Your task to perform on an android device: Add alienware aurora to the cart on walmart.com, then select checkout. Image 0: 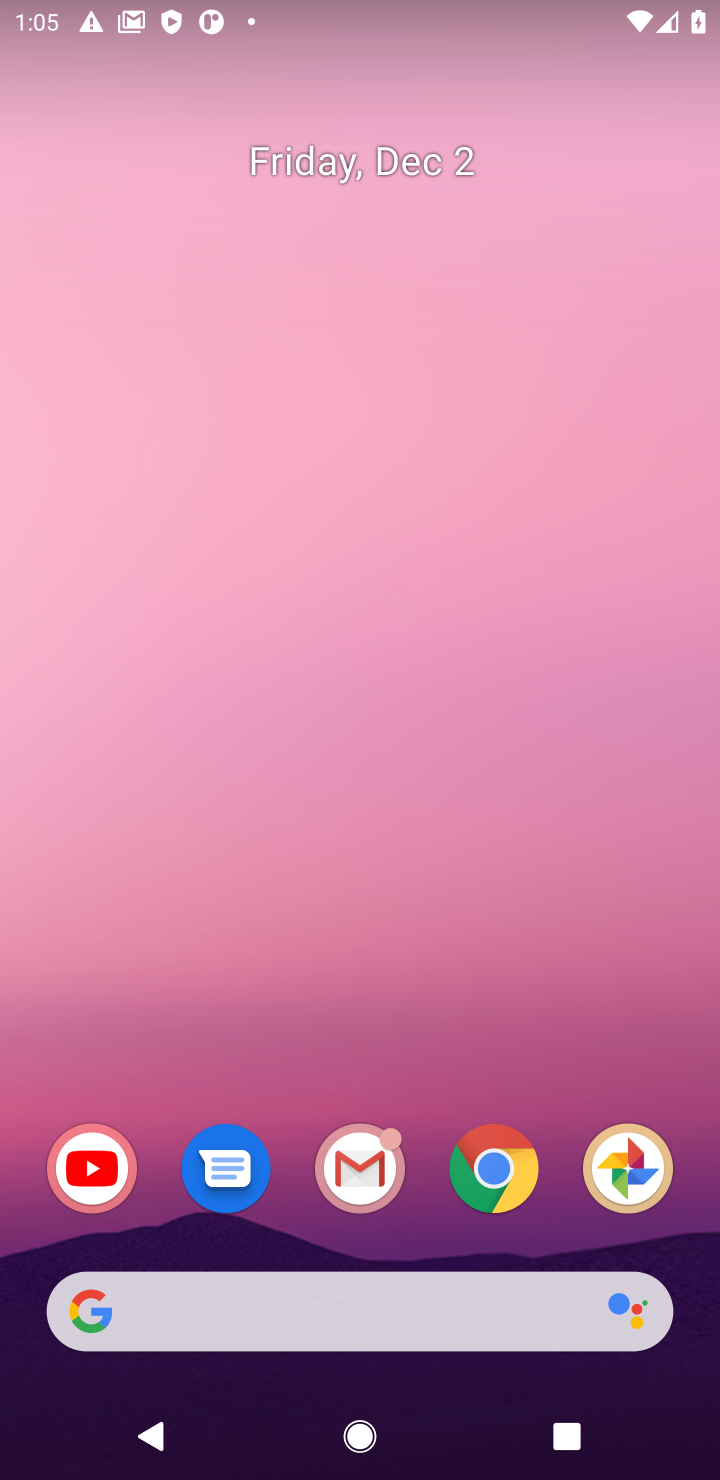
Step 0: click (495, 1182)
Your task to perform on an android device: Add alienware aurora to the cart on walmart.com, then select checkout. Image 1: 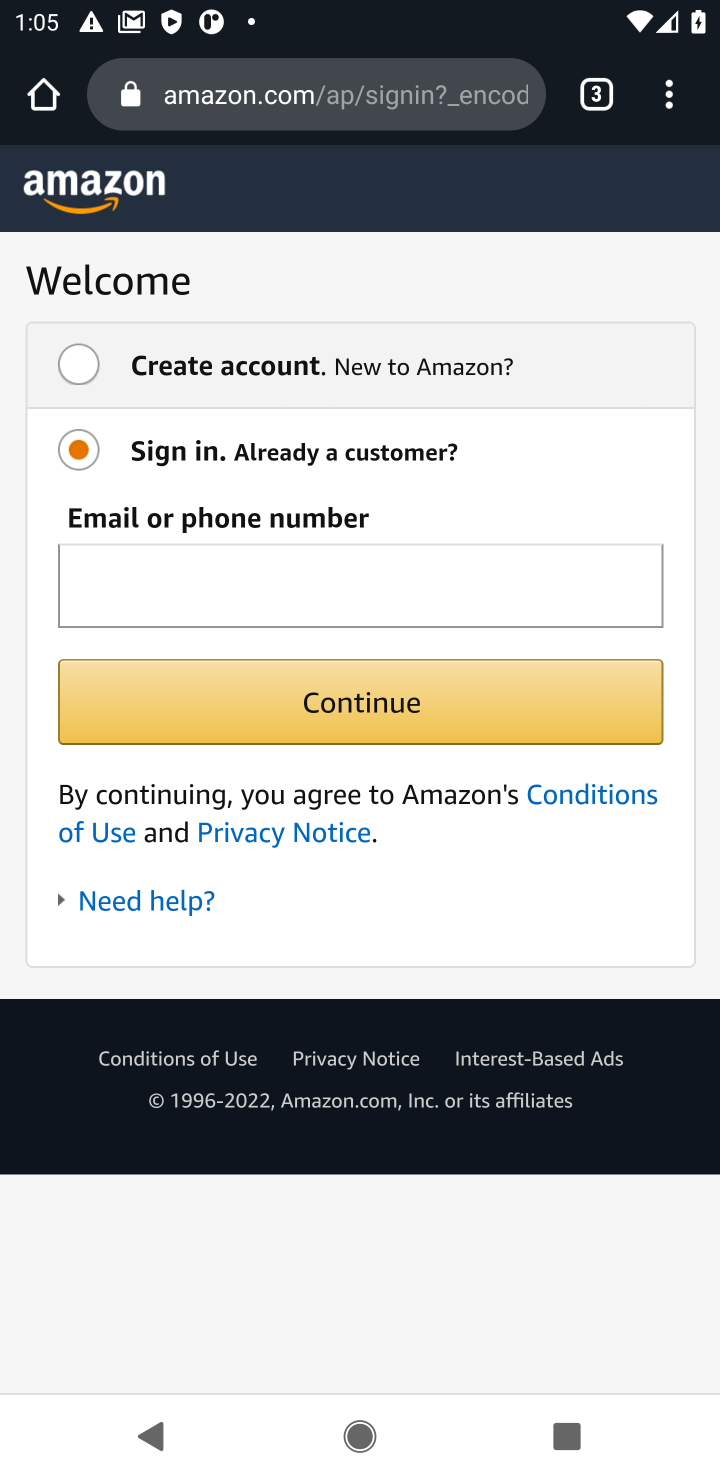
Step 1: click (246, 106)
Your task to perform on an android device: Add alienware aurora to the cart on walmart.com, then select checkout. Image 2: 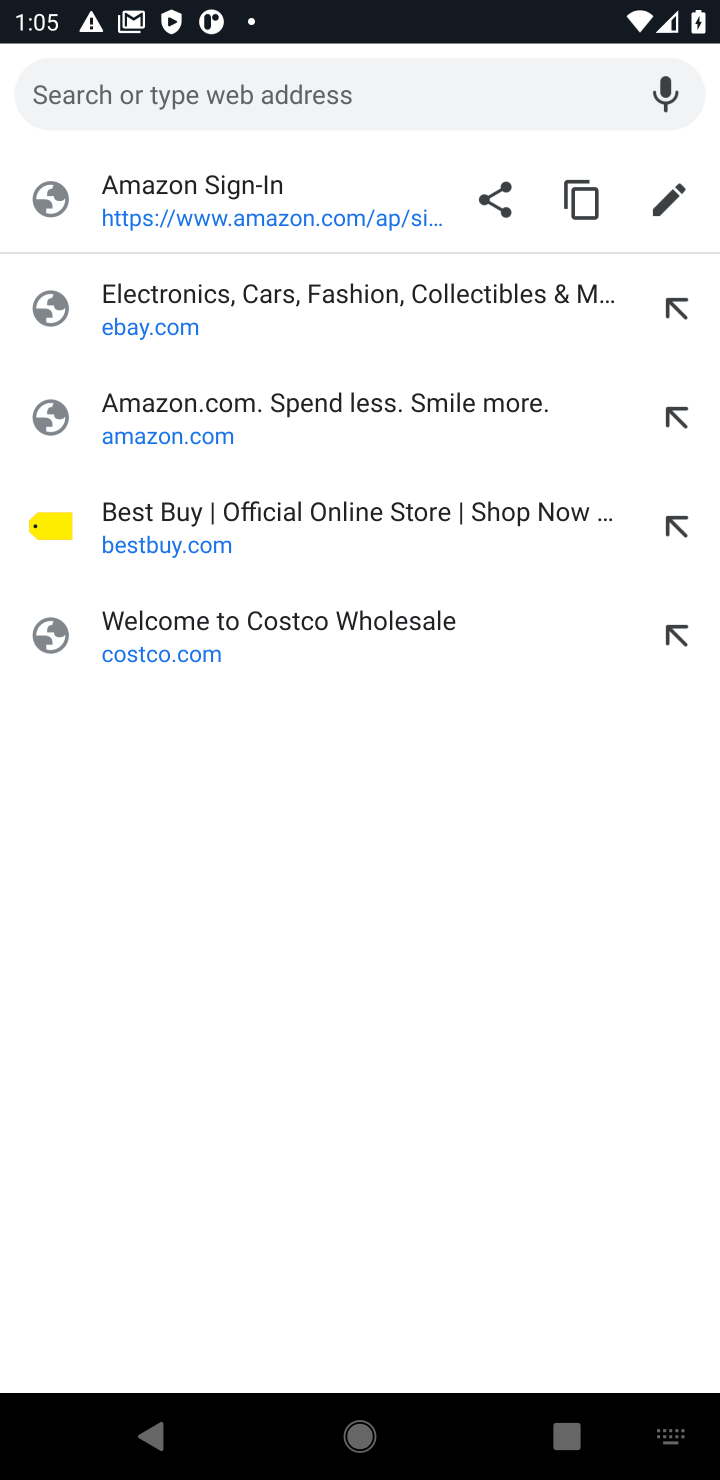
Step 2: type "walmart.com"
Your task to perform on an android device: Add alienware aurora to the cart on walmart.com, then select checkout. Image 3: 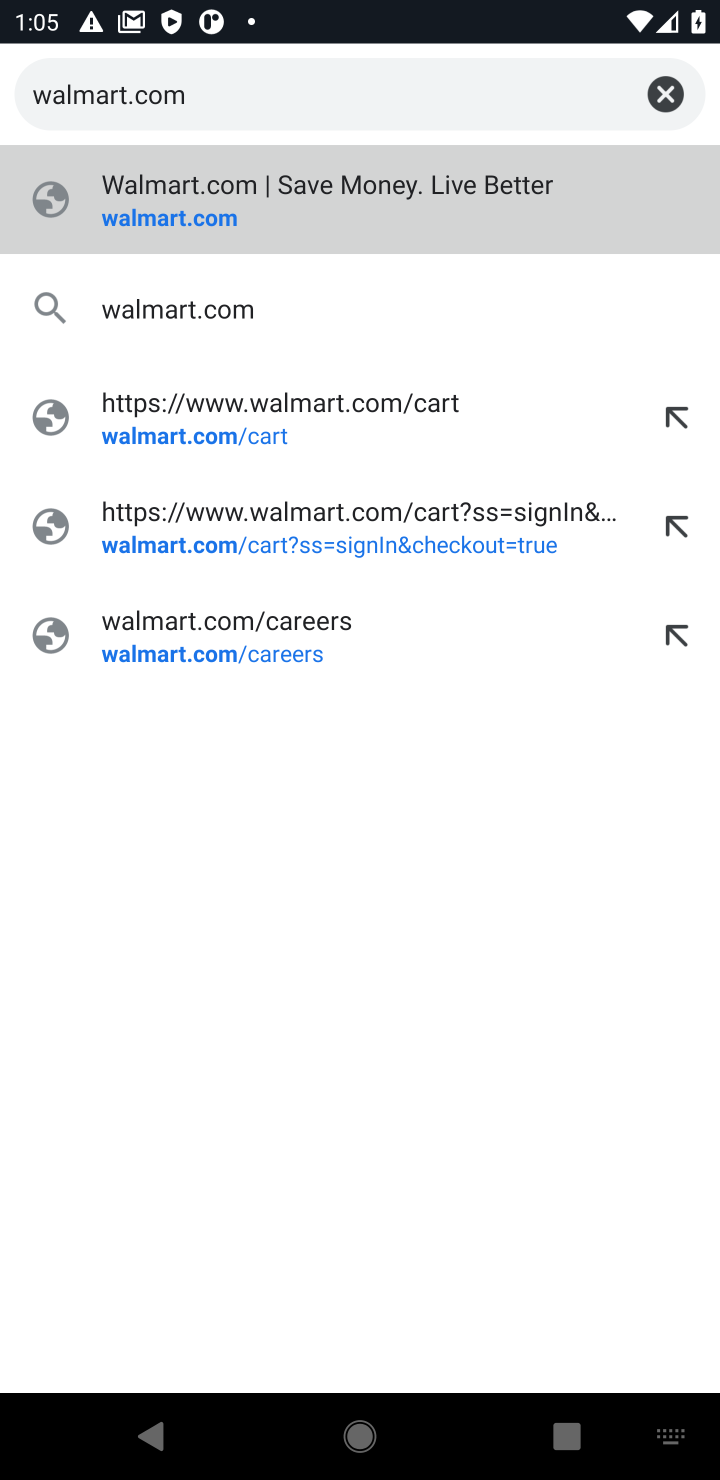
Step 3: click (147, 208)
Your task to perform on an android device: Add alienware aurora to the cart on walmart.com, then select checkout. Image 4: 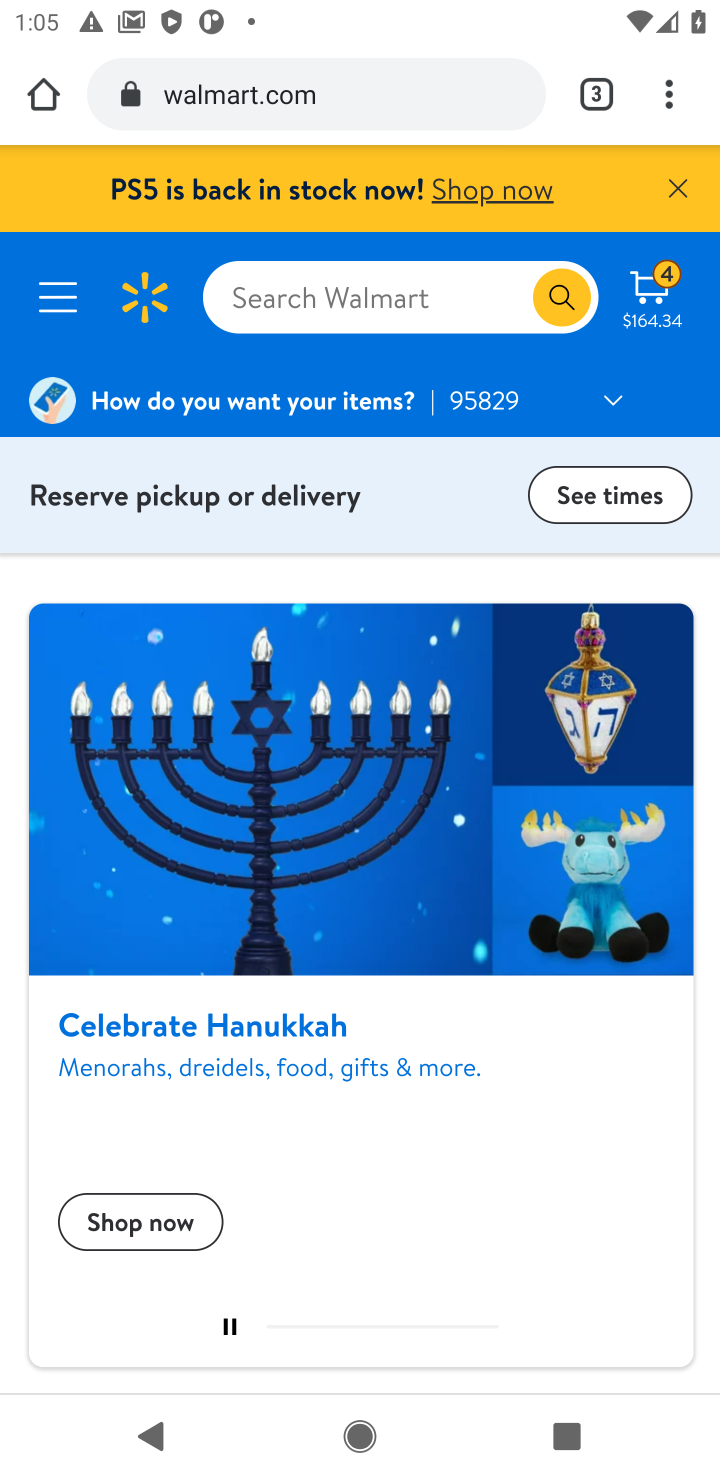
Step 4: click (329, 297)
Your task to perform on an android device: Add alienware aurora to the cart on walmart.com, then select checkout. Image 5: 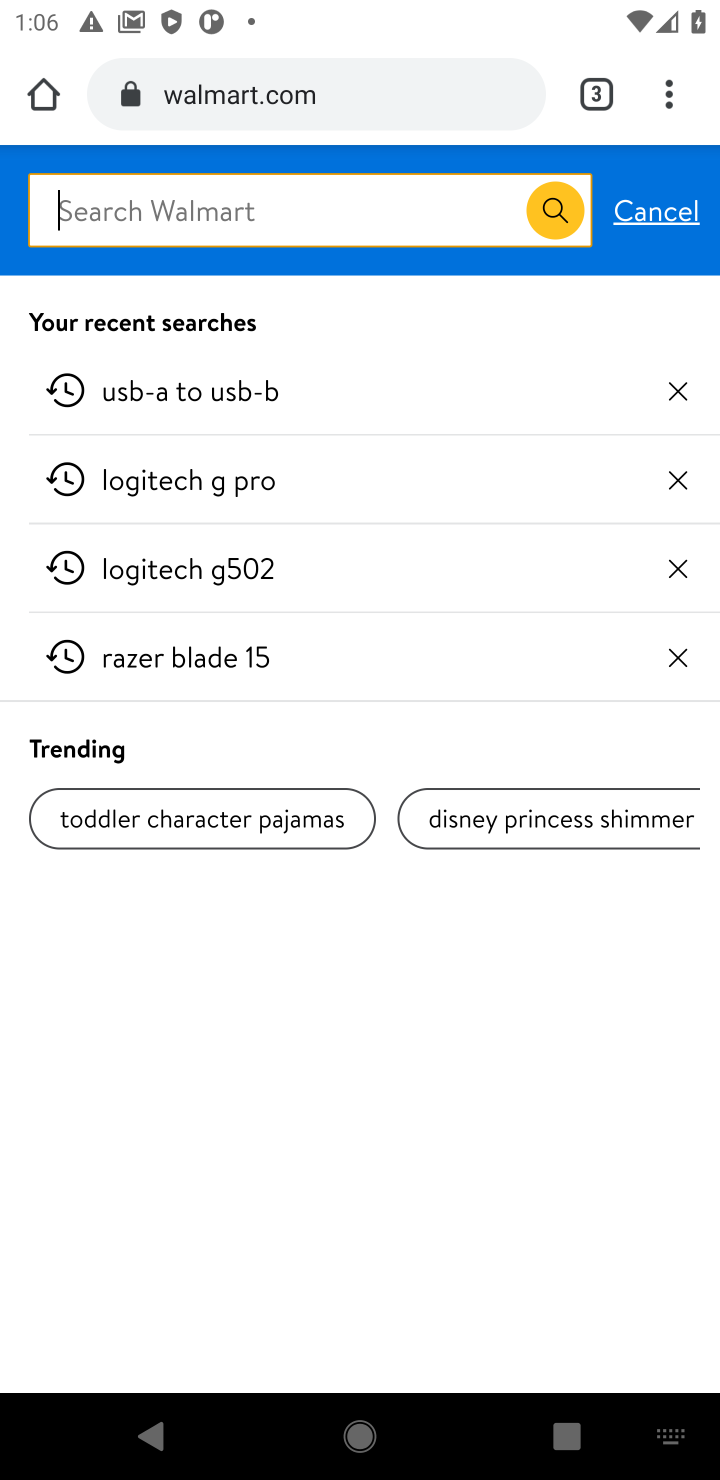
Step 5: type "alienware aurora"
Your task to perform on an android device: Add alienware aurora to the cart on walmart.com, then select checkout. Image 6: 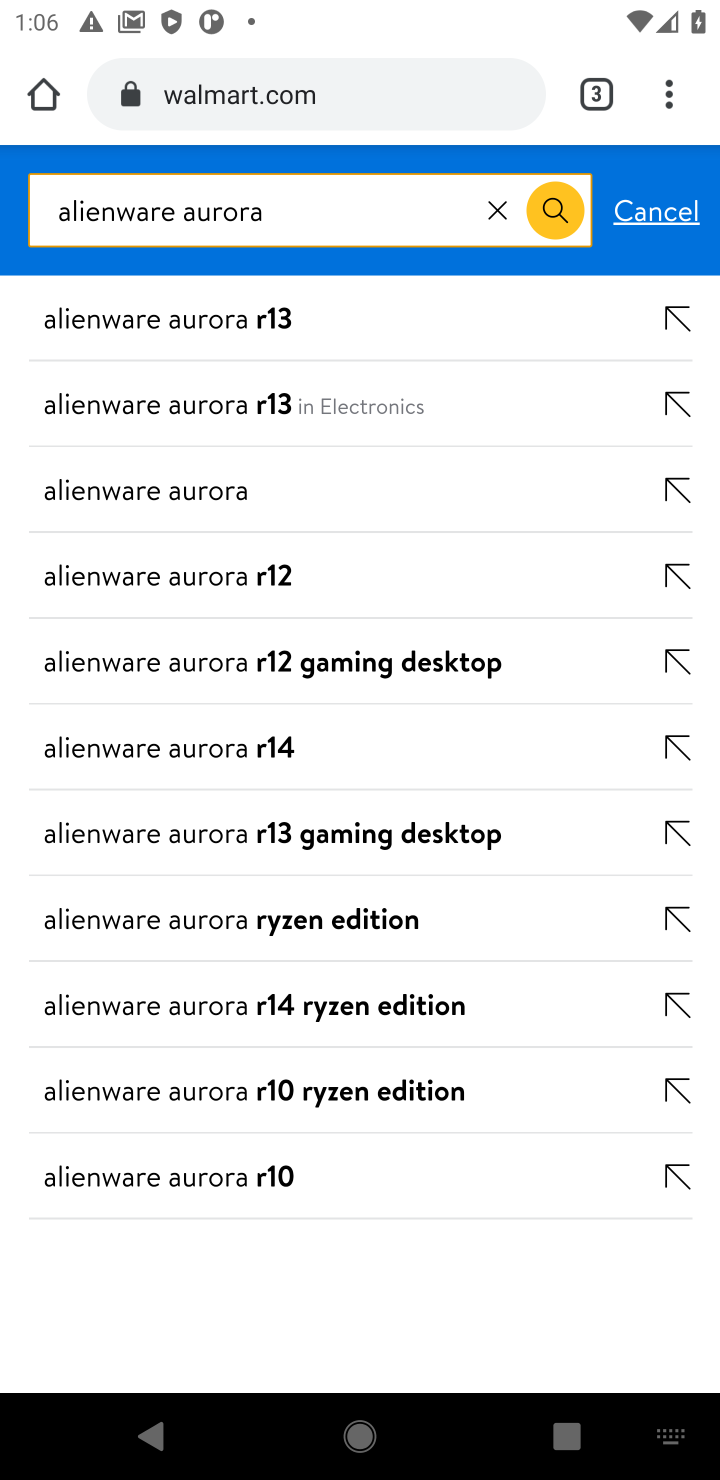
Step 6: click (156, 495)
Your task to perform on an android device: Add alienware aurora to the cart on walmart.com, then select checkout. Image 7: 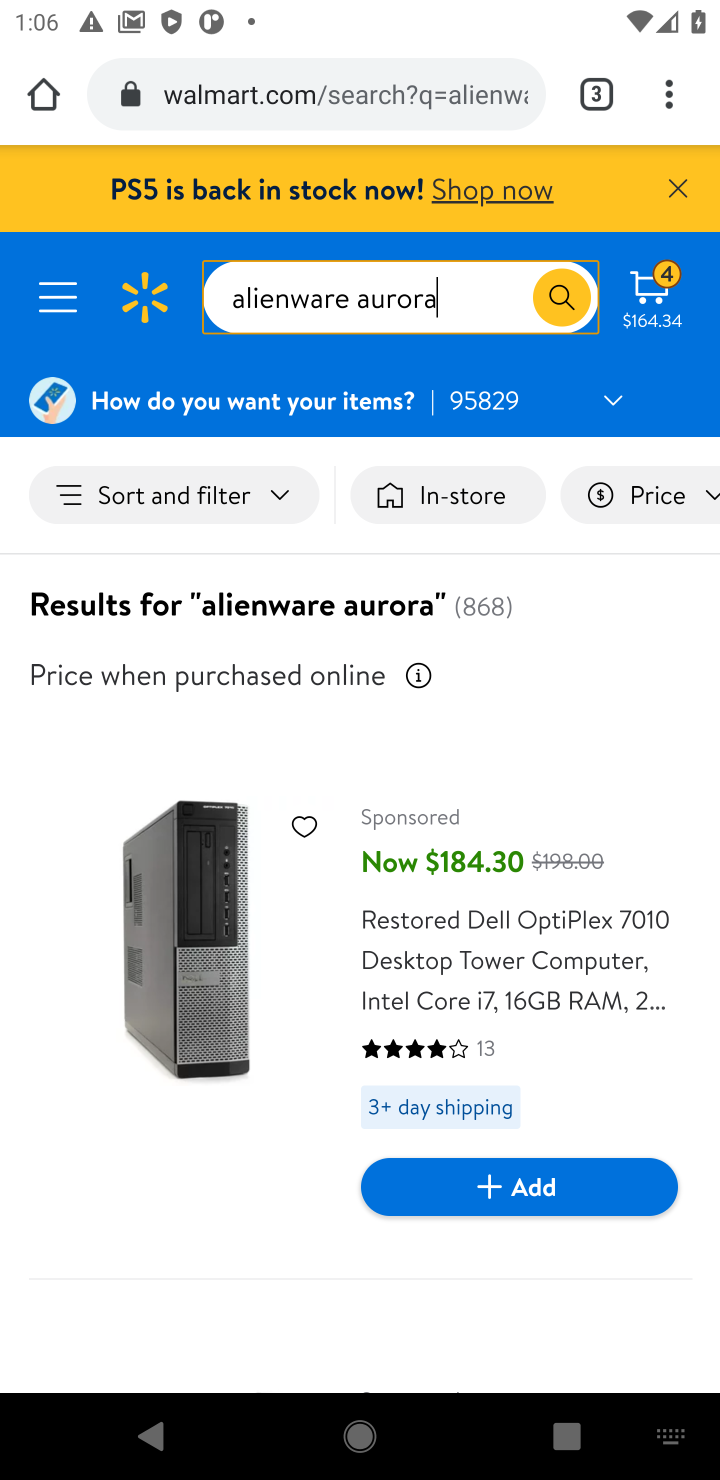
Step 7: drag from (346, 963) to (346, 483)
Your task to perform on an android device: Add alienware aurora to the cart on walmart.com, then select checkout. Image 8: 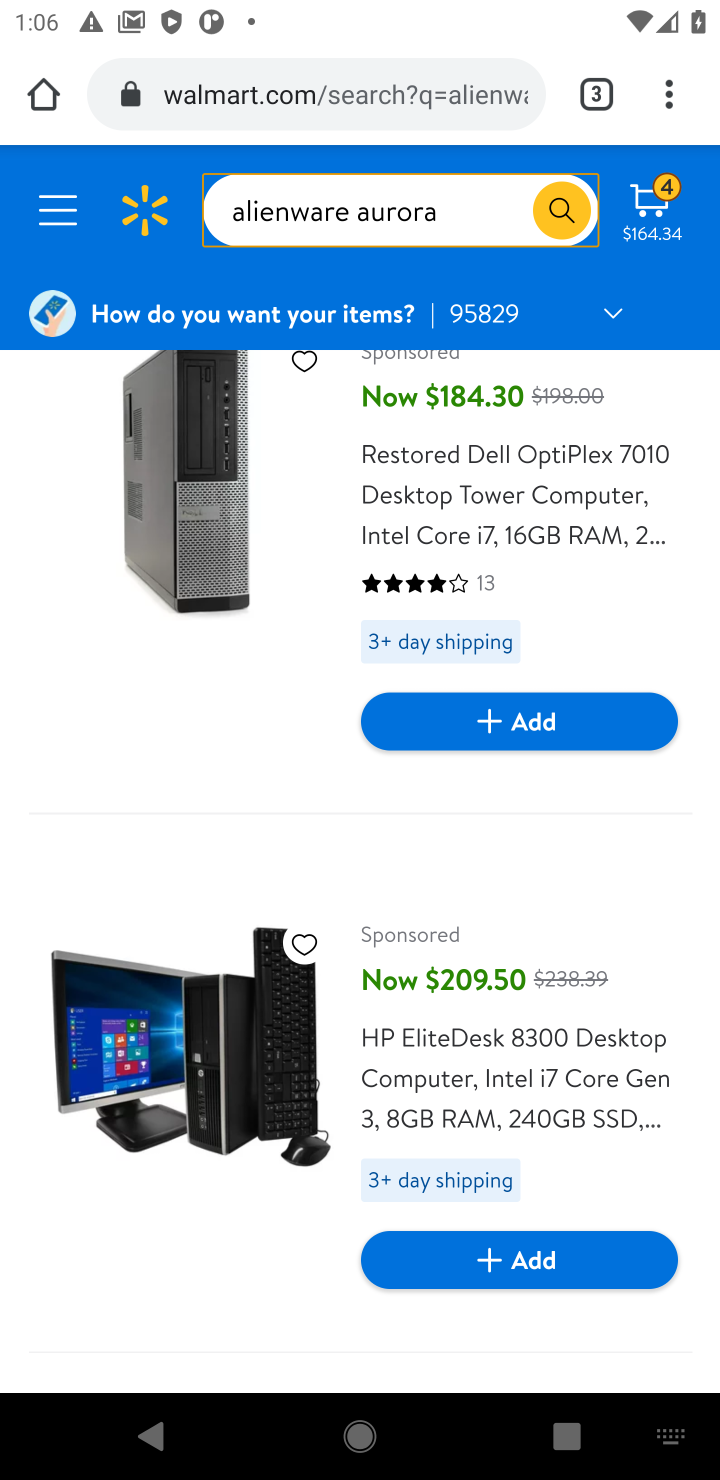
Step 8: drag from (326, 1084) to (316, 442)
Your task to perform on an android device: Add alienware aurora to the cart on walmart.com, then select checkout. Image 9: 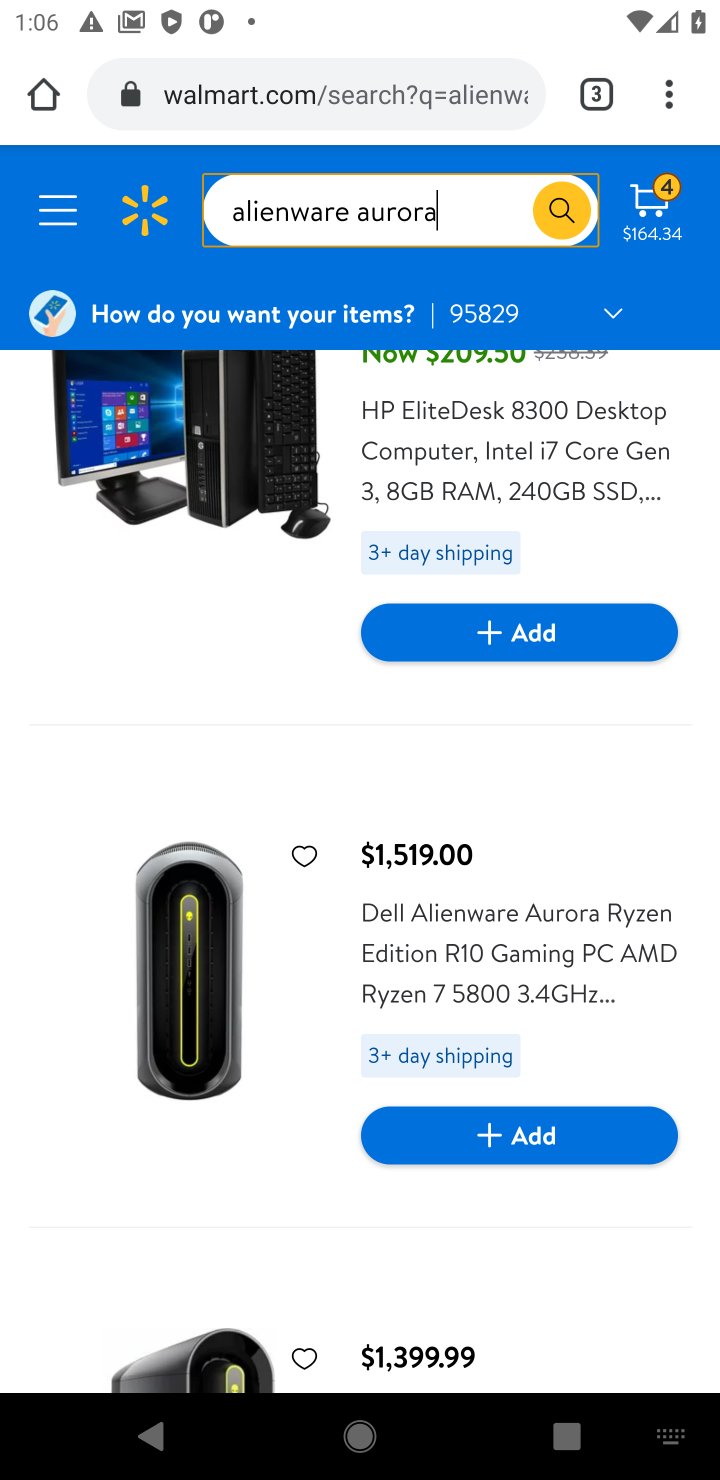
Step 9: drag from (288, 1045) to (293, 704)
Your task to perform on an android device: Add alienware aurora to the cart on walmart.com, then select checkout. Image 10: 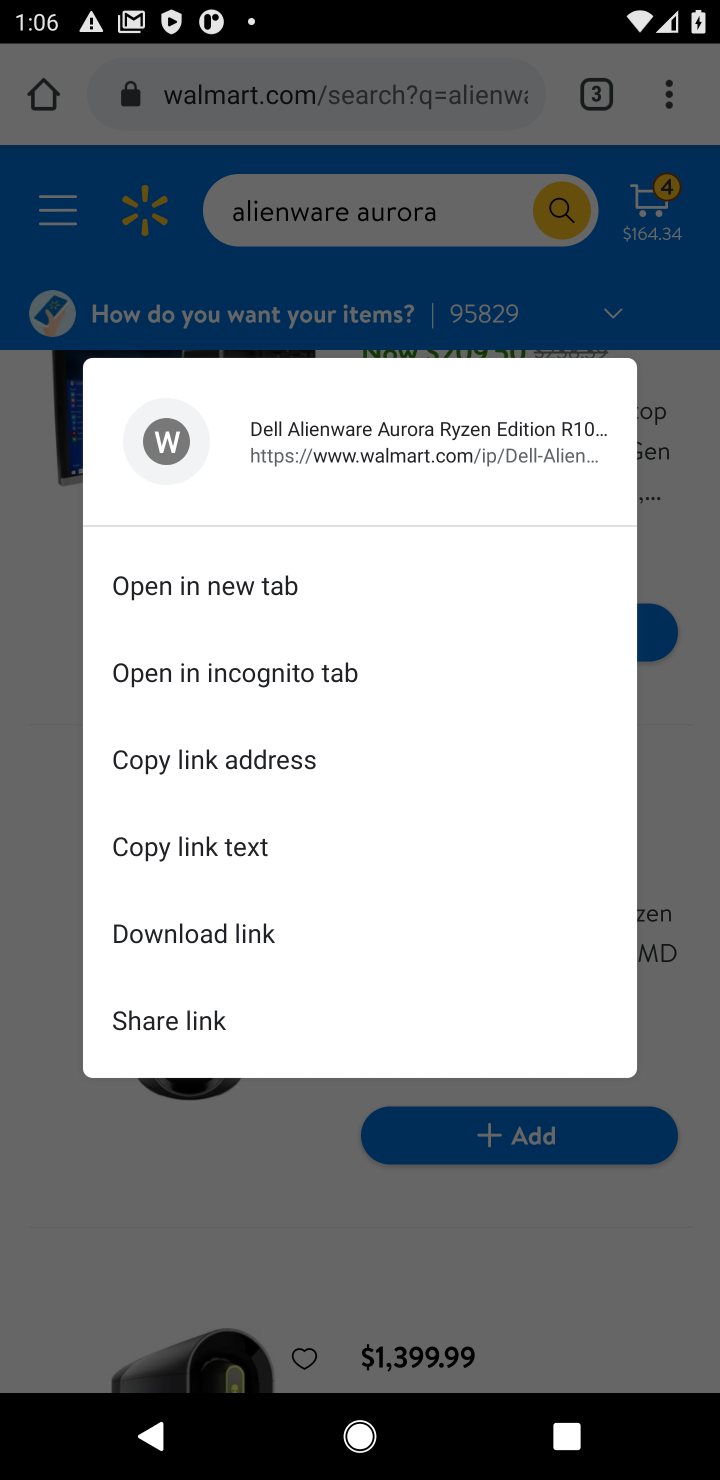
Step 10: click (622, 1136)
Your task to perform on an android device: Add alienware aurora to the cart on walmart.com, then select checkout. Image 11: 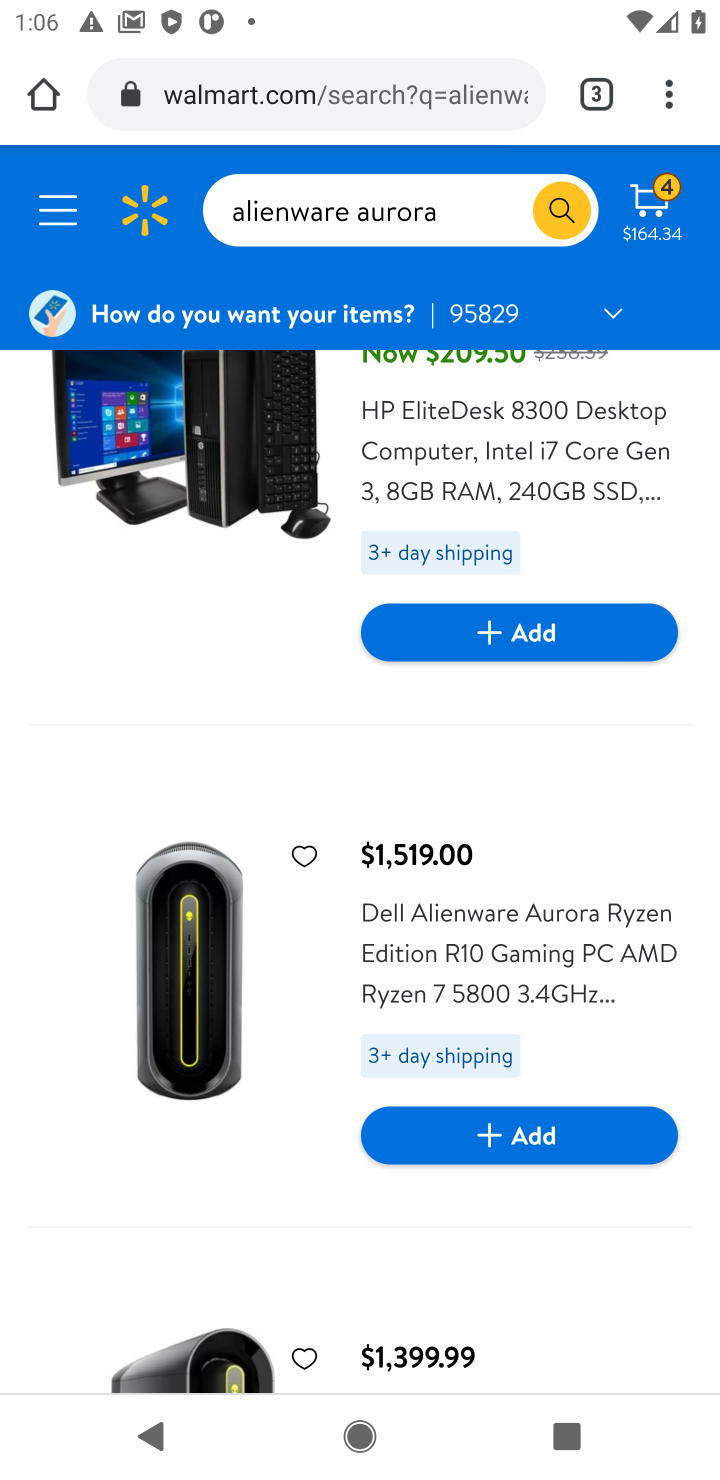
Step 11: click (508, 1144)
Your task to perform on an android device: Add alienware aurora to the cart on walmart.com, then select checkout. Image 12: 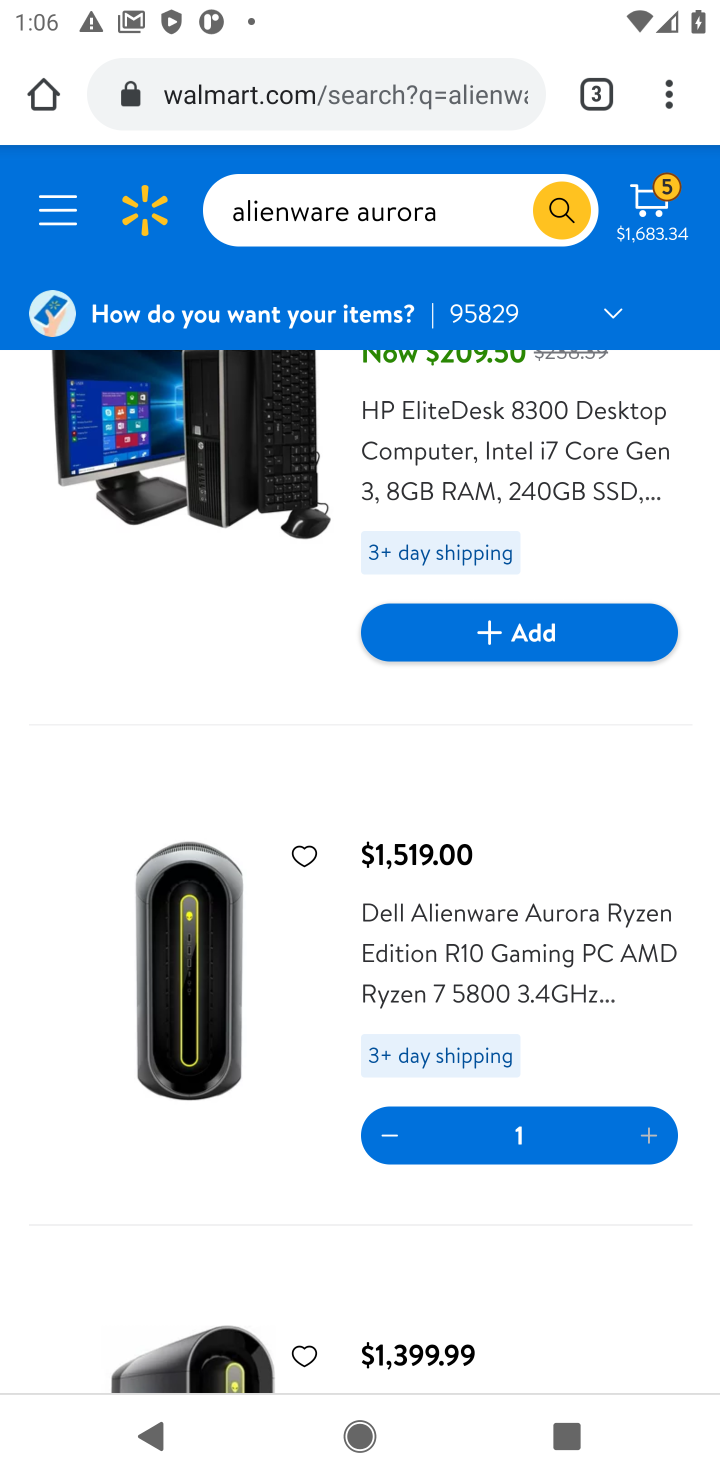
Step 12: click (650, 211)
Your task to perform on an android device: Add alienware aurora to the cart on walmart.com, then select checkout. Image 13: 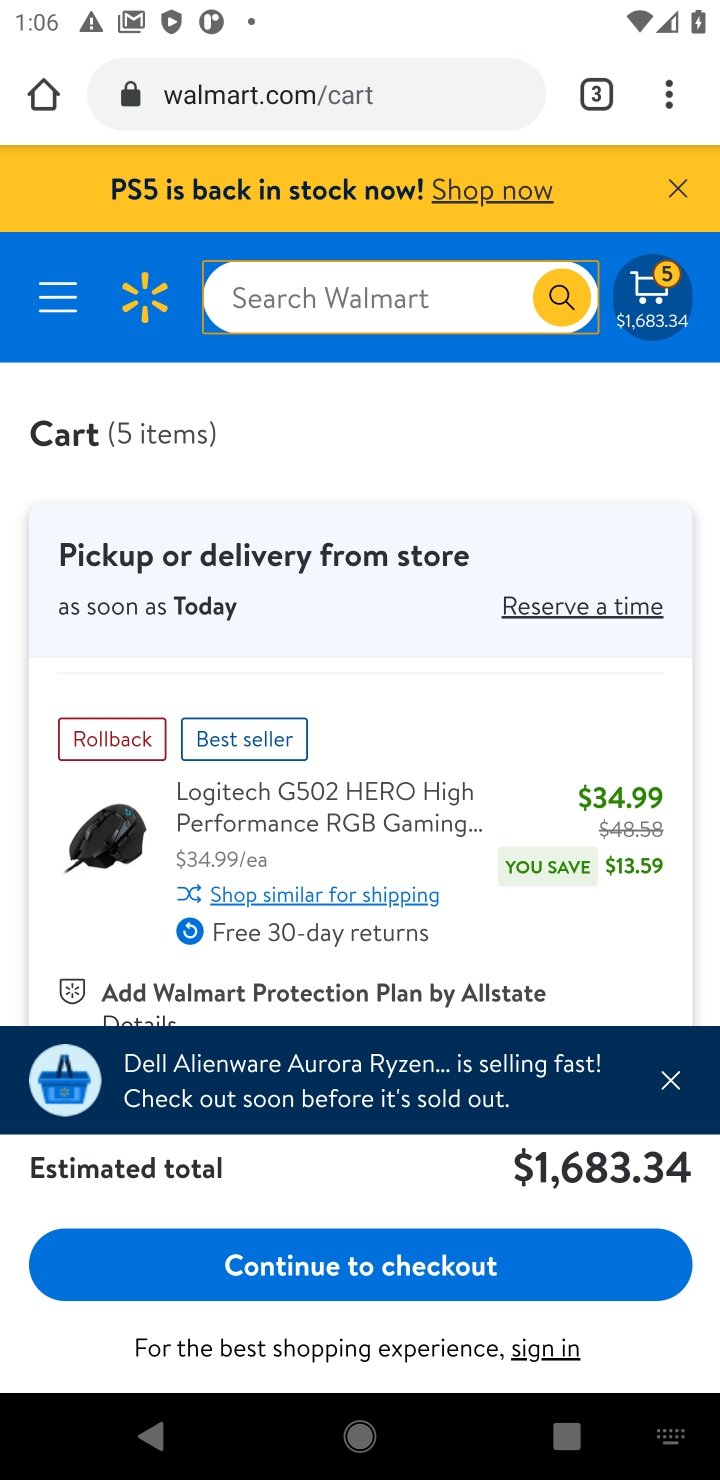
Step 13: click (275, 1266)
Your task to perform on an android device: Add alienware aurora to the cart on walmart.com, then select checkout. Image 14: 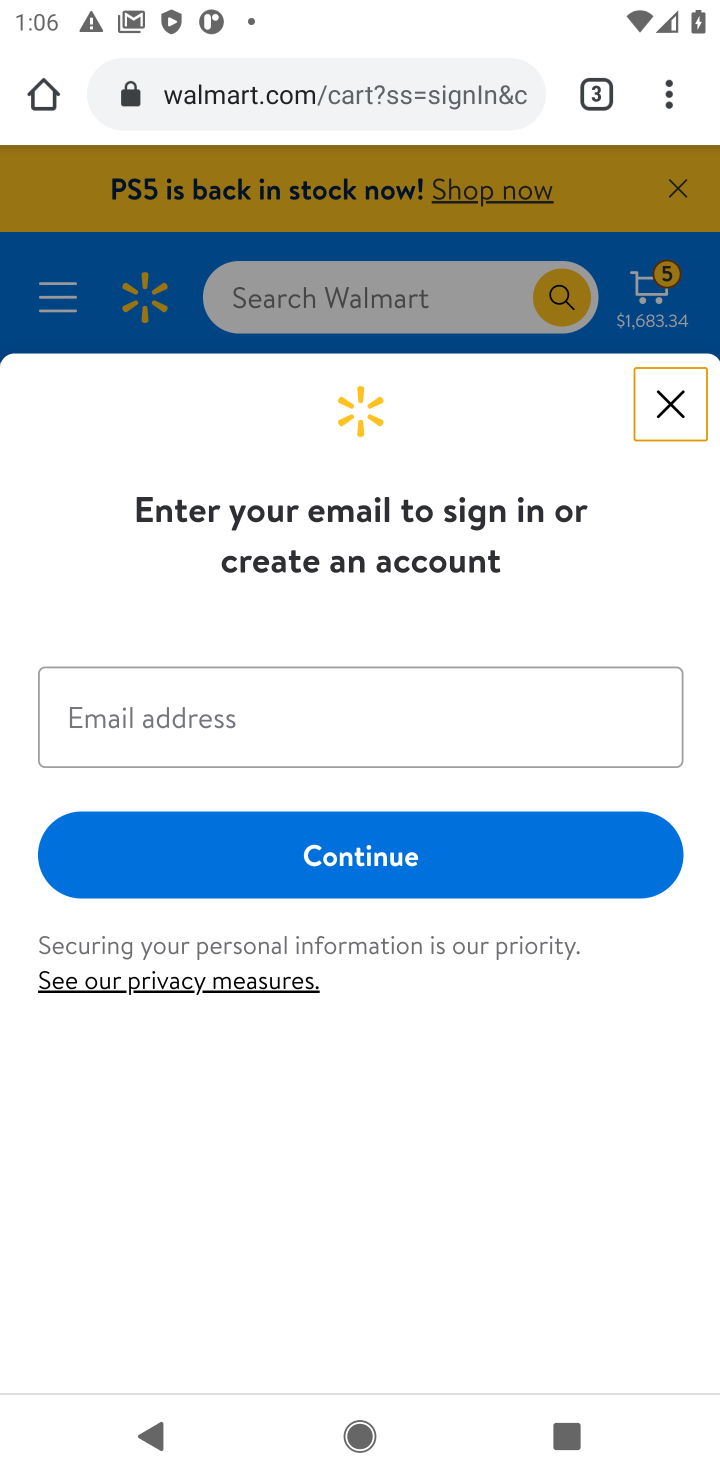
Step 14: task complete